Your task to perform on an android device: View the shopping cart on newegg. Add razer blade to the cart on newegg Image 0: 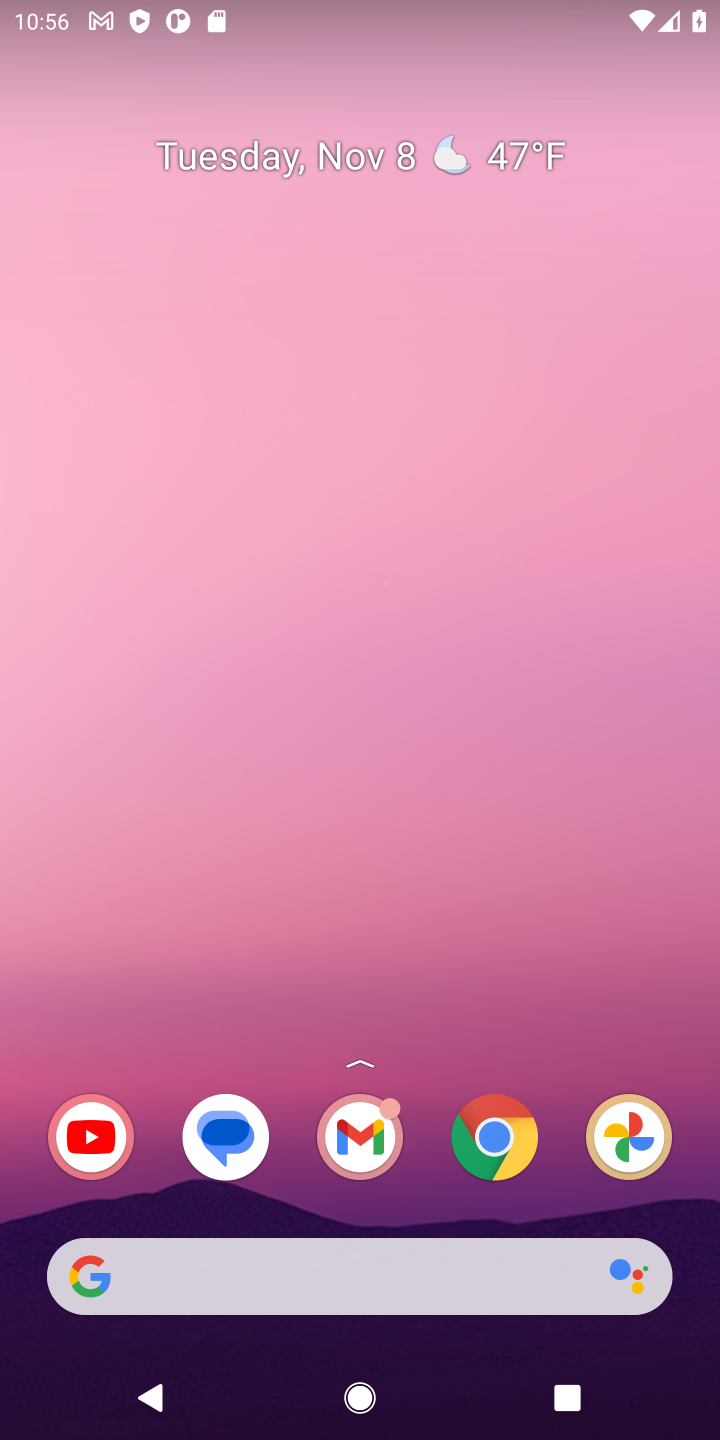
Step 0: click (497, 1140)
Your task to perform on an android device: View the shopping cart on newegg. Add razer blade to the cart on newegg Image 1: 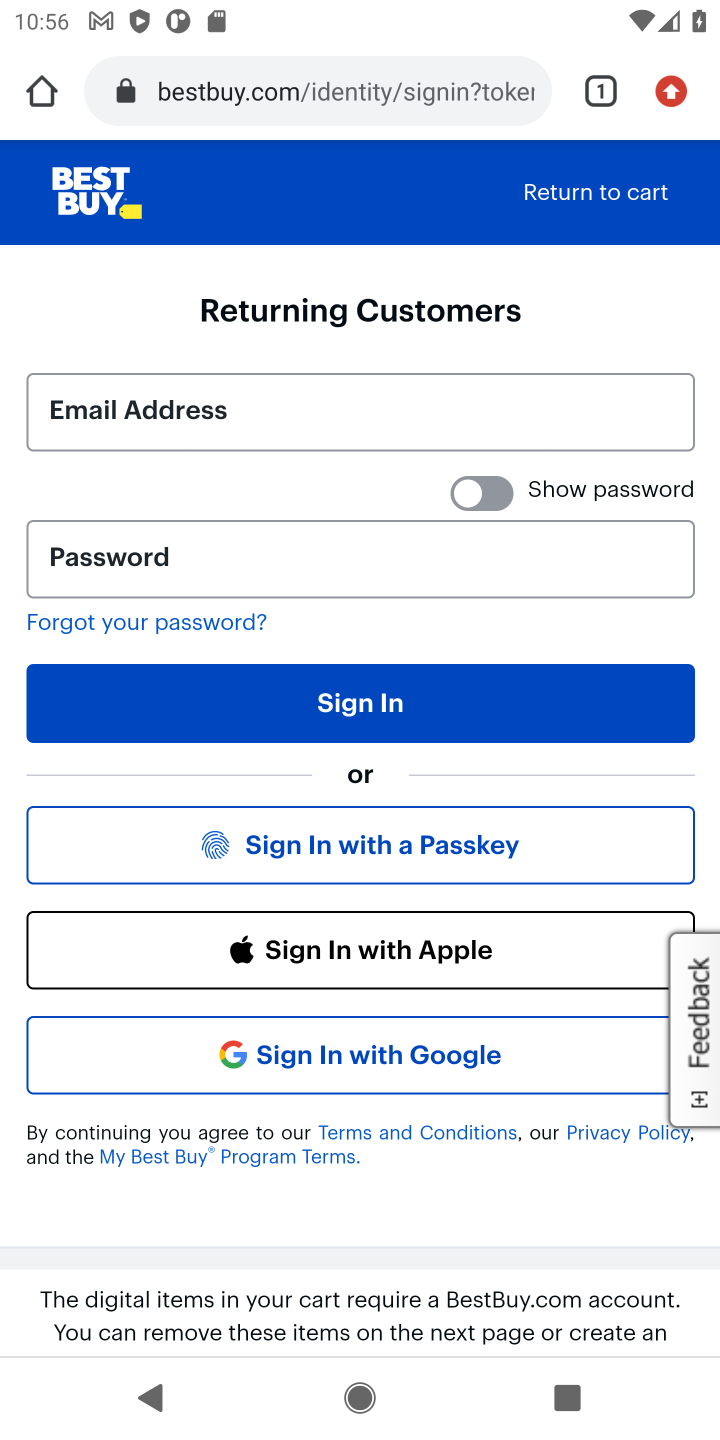
Step 1: click (472, 103)
Your task to perform on an android device: View the shopping cart on newegg. Add razer blade to the cart on newegg Image 2: 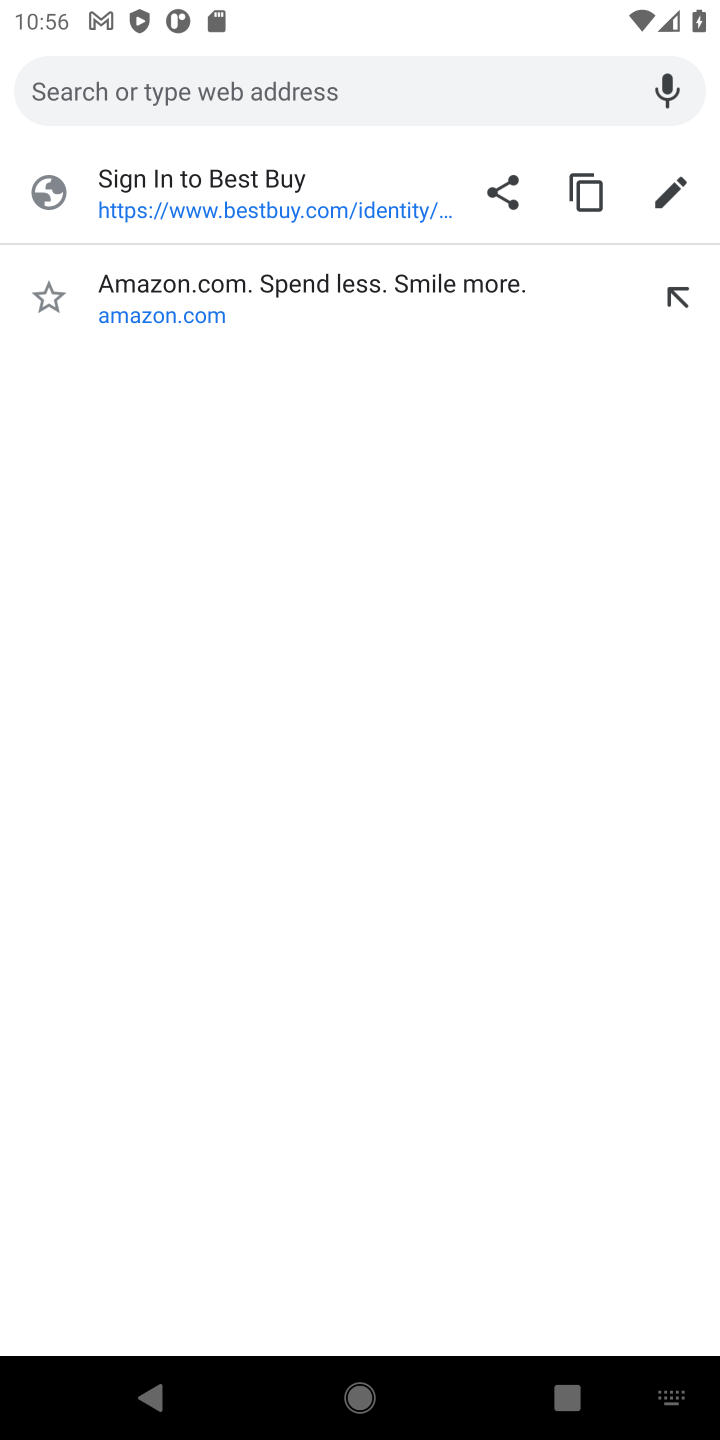
Step 2: type "newegg"
Your task to perform on an android device: View the shopping cart on newegg. Add razer blade to the cart on newegg Image 3: 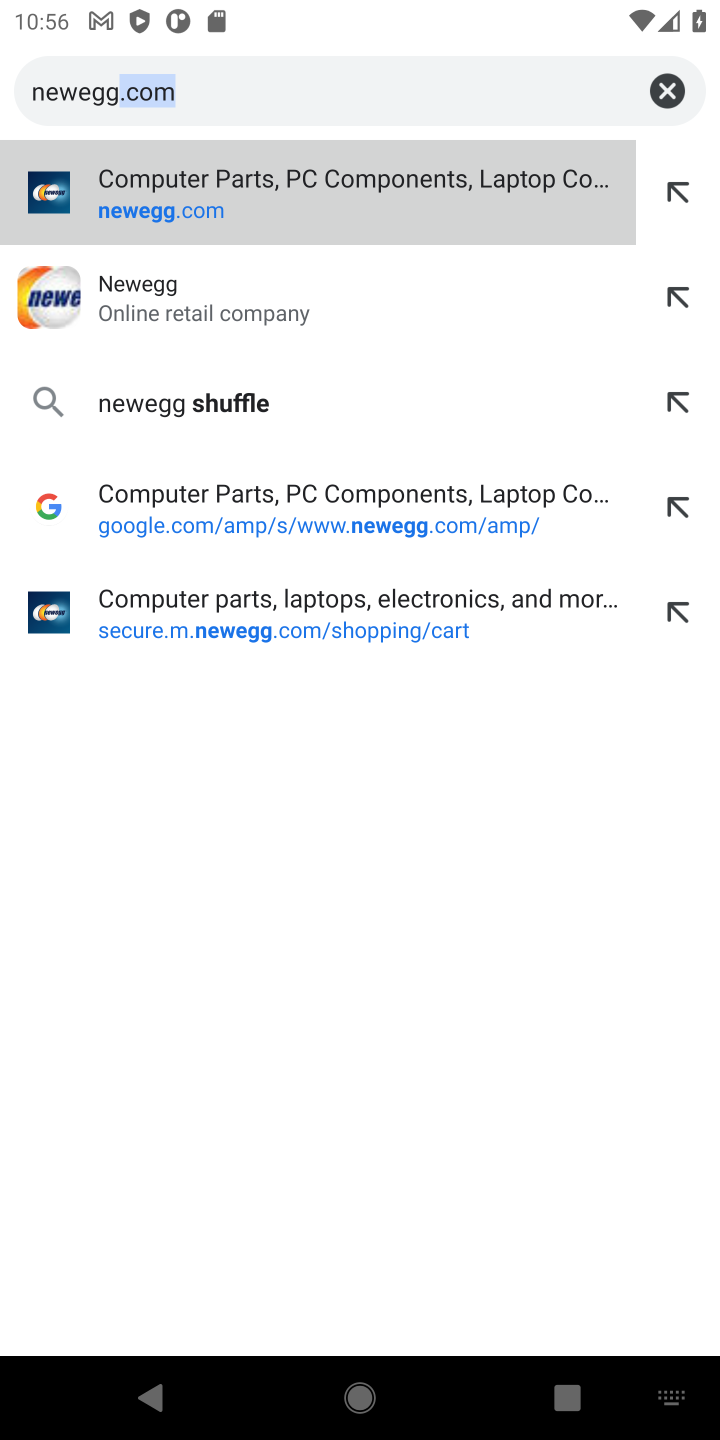
Step 3: click (184, 315)
Your task to perform on an android device: View the shopping cart on newegg. Add razer blade to the cart on newegg Image 4: 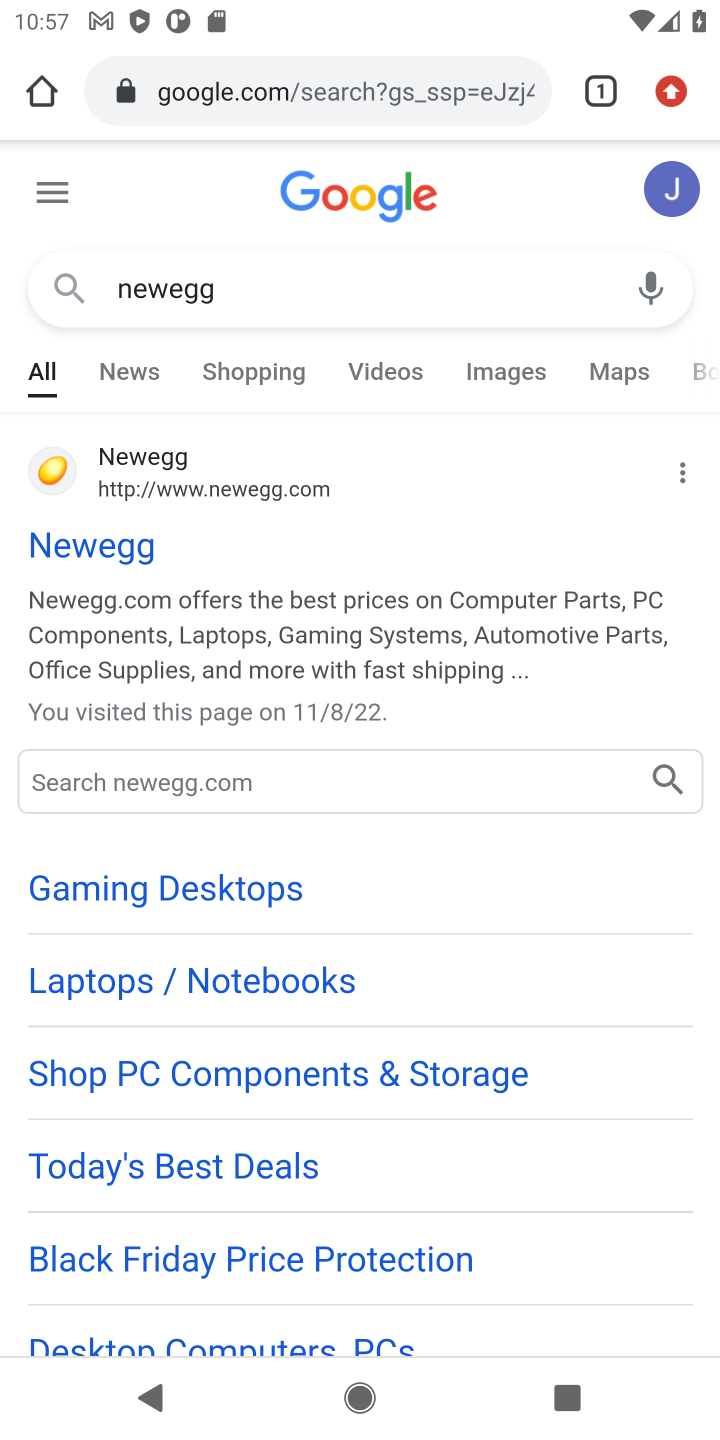
Step 4: click (193, 542)
Your task to perform on an android device: View the shopping cart on newegg. Add razer blade to the cart on newegg Image 5: 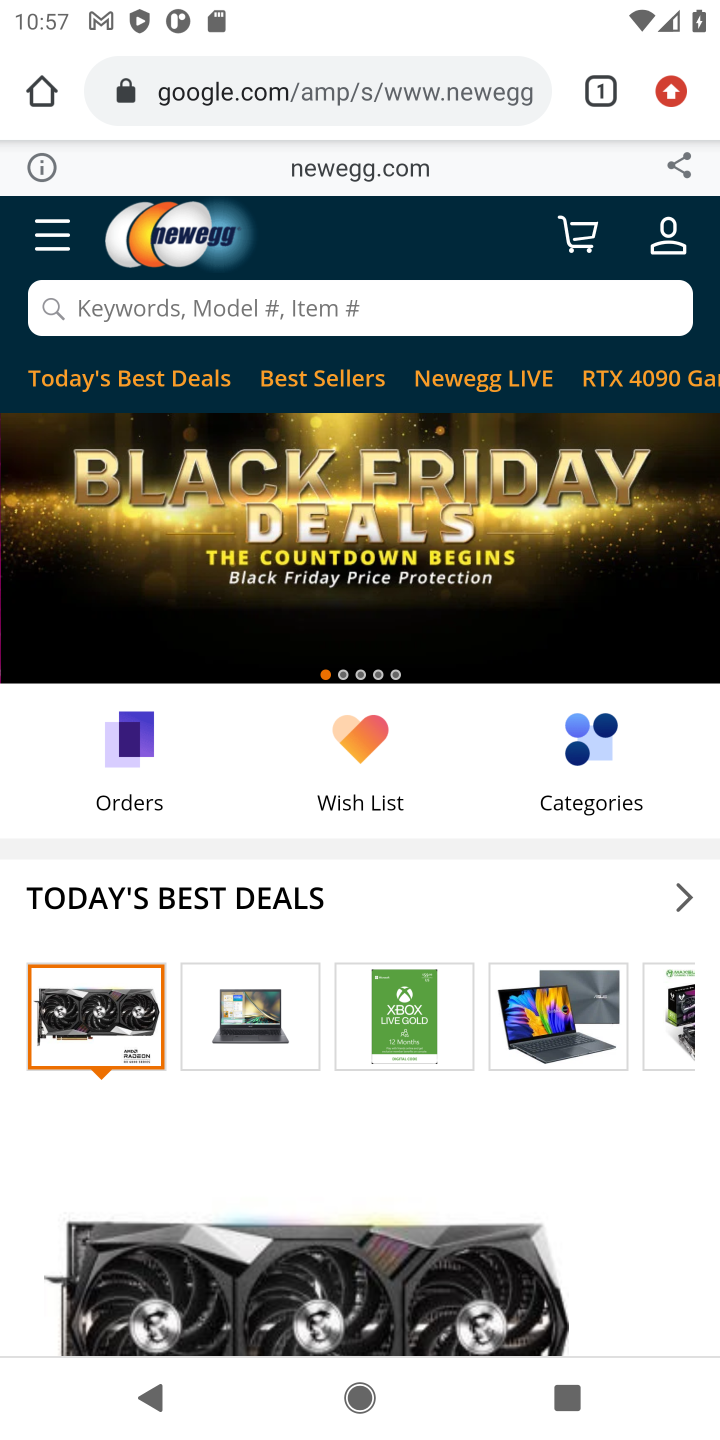
Step 5: click (573, 234)
Your task to perform on an android device: View the shopping cart on newegg. Add razer blade to the cart on newegg Image 6: 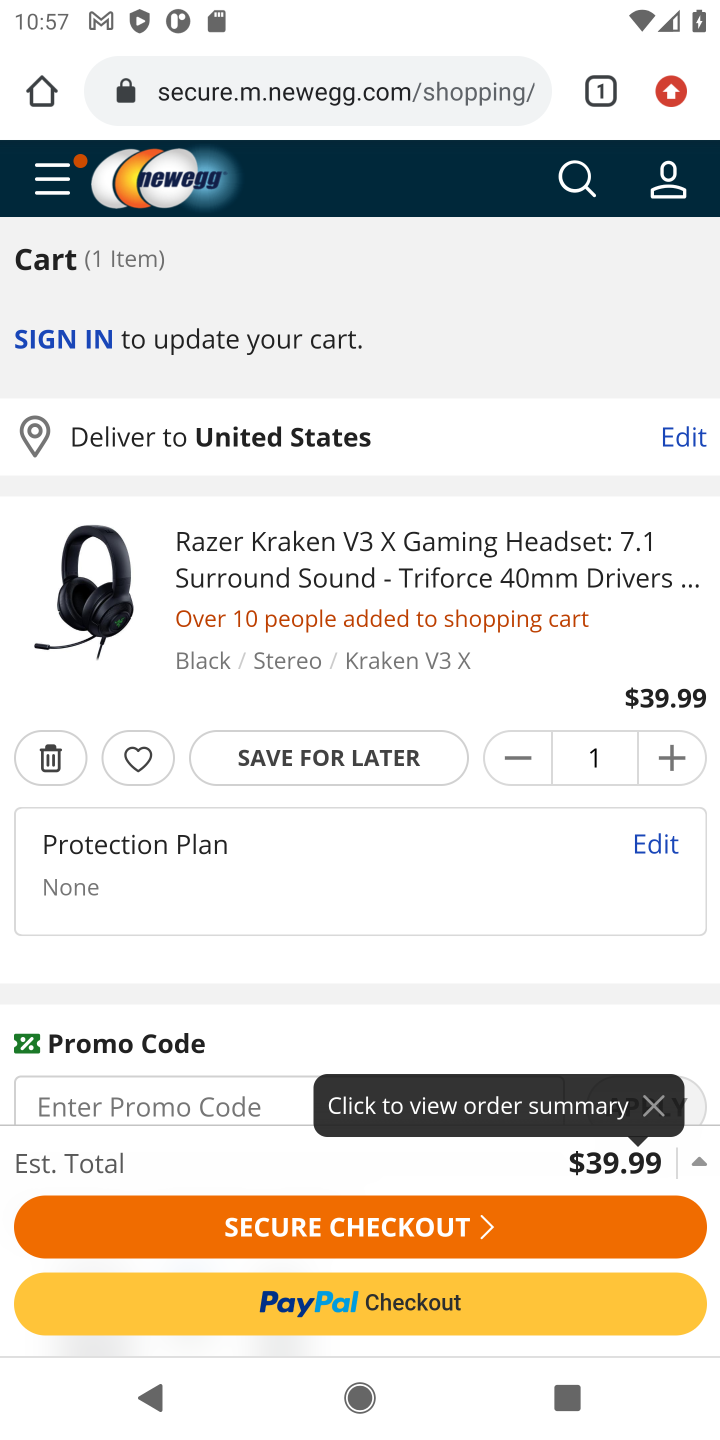
Step 6: drag from (354, 869) to (414, 472)
Your task to perform on an android device: View the shopping cart on newegg. Add razer blade to the cart on newegg Image 7: 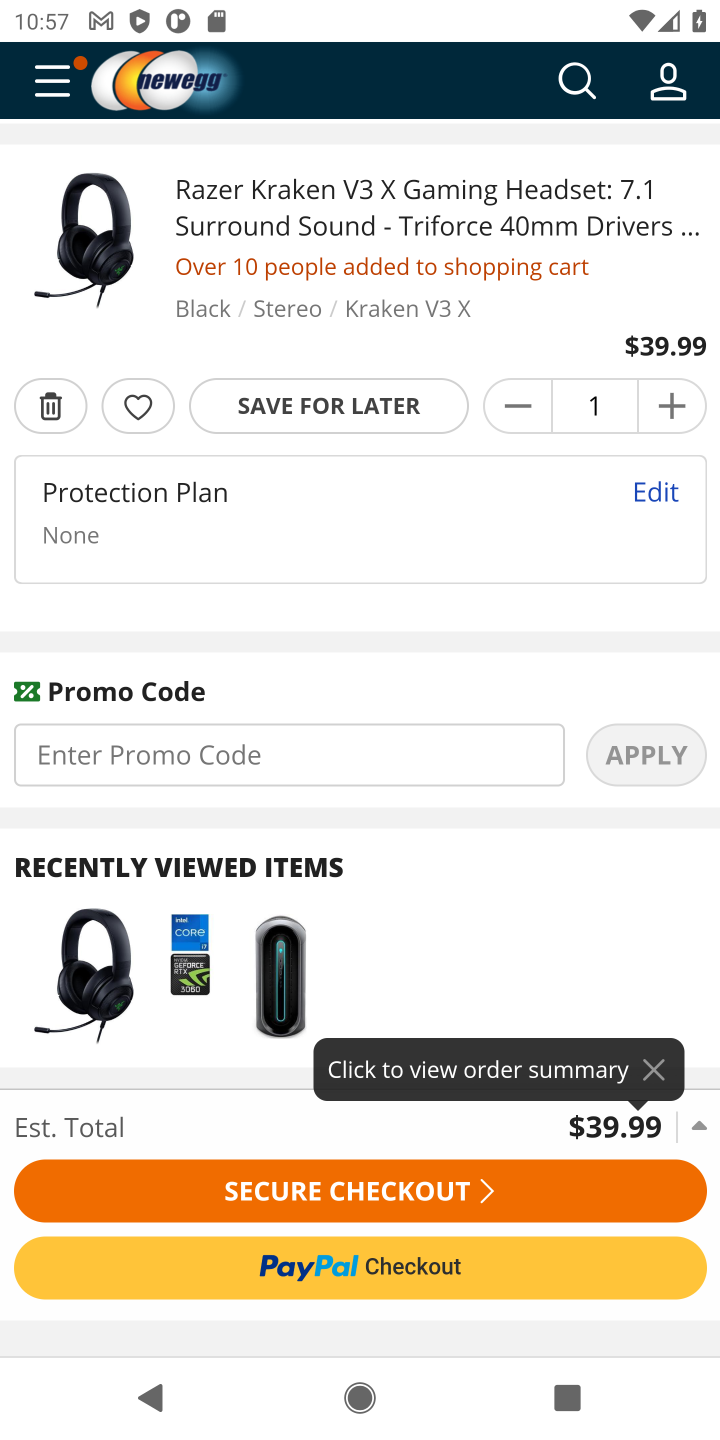
Step 7: drag from (451, 352) to (433, 729)
Your task to perform on an android device: View the shopping cart on newegg. Add razer blade to the cart on newegg Image 8: 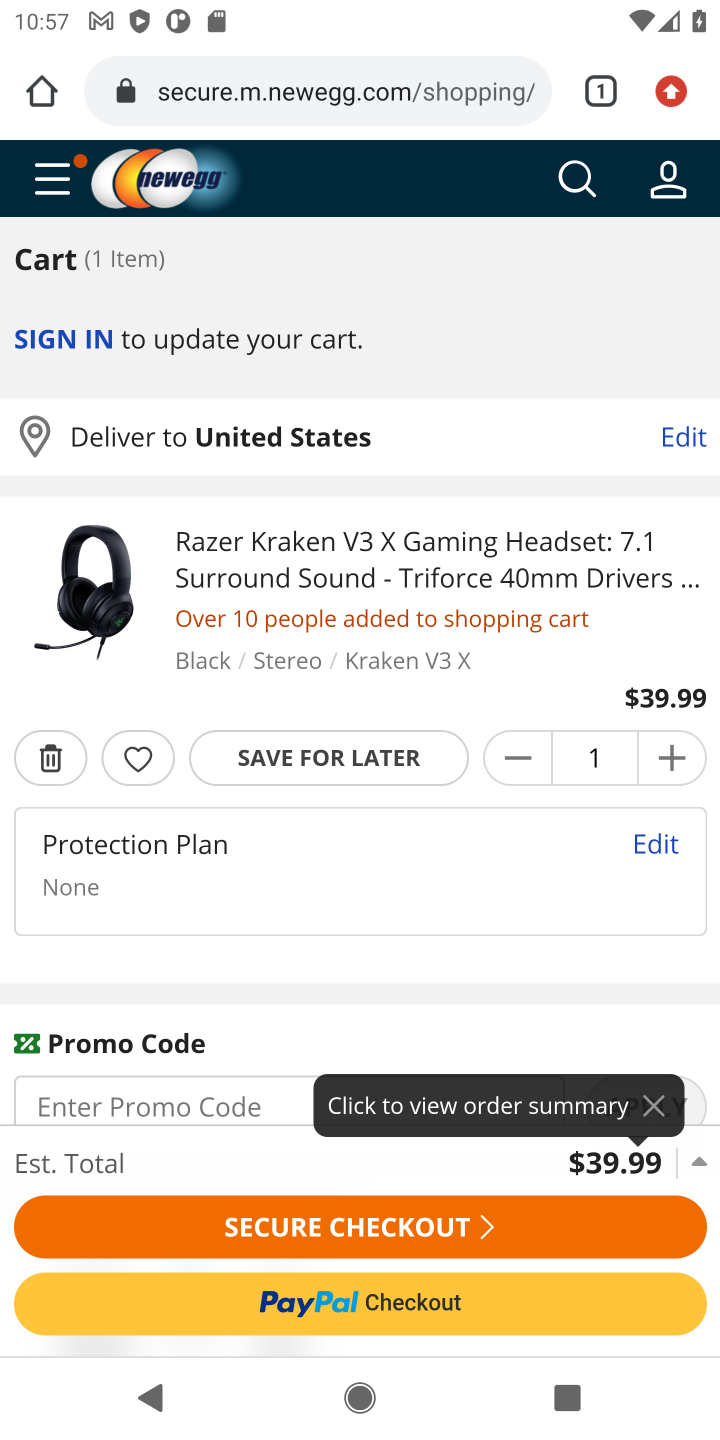
Step 8: click (567, 182)
Your task to perform on an android device: View the shopping cart on newegg. Add razer blade to the cart on newegg Image 9: 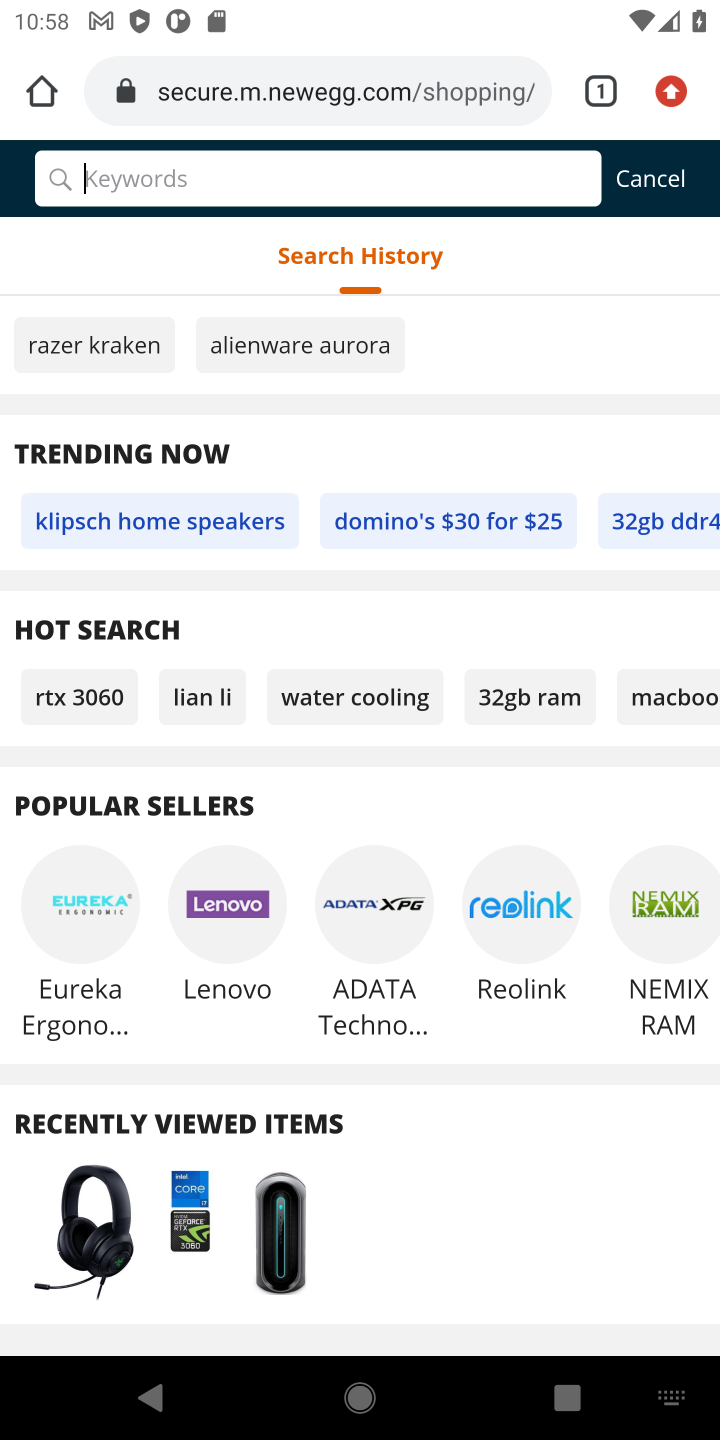
Step 9: type "razer blade"
Your task to perform on an android device: View the shopping cart on newegg. Add razer blade to the cart on newegg Image 10: 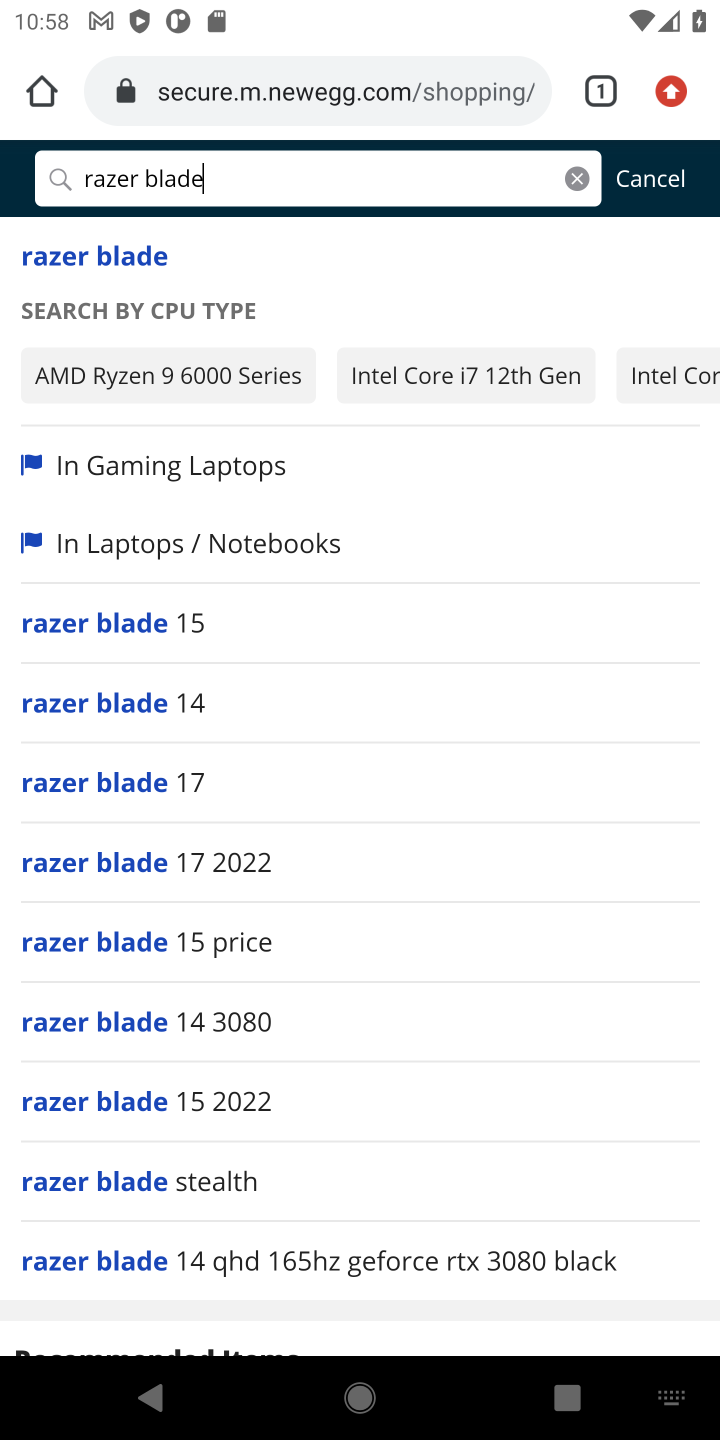
Step 10: click (149, 259)
Your task to perform on an android device: View the shopping cart on newegg. Add razer blade to the cart on newegg Image 11: 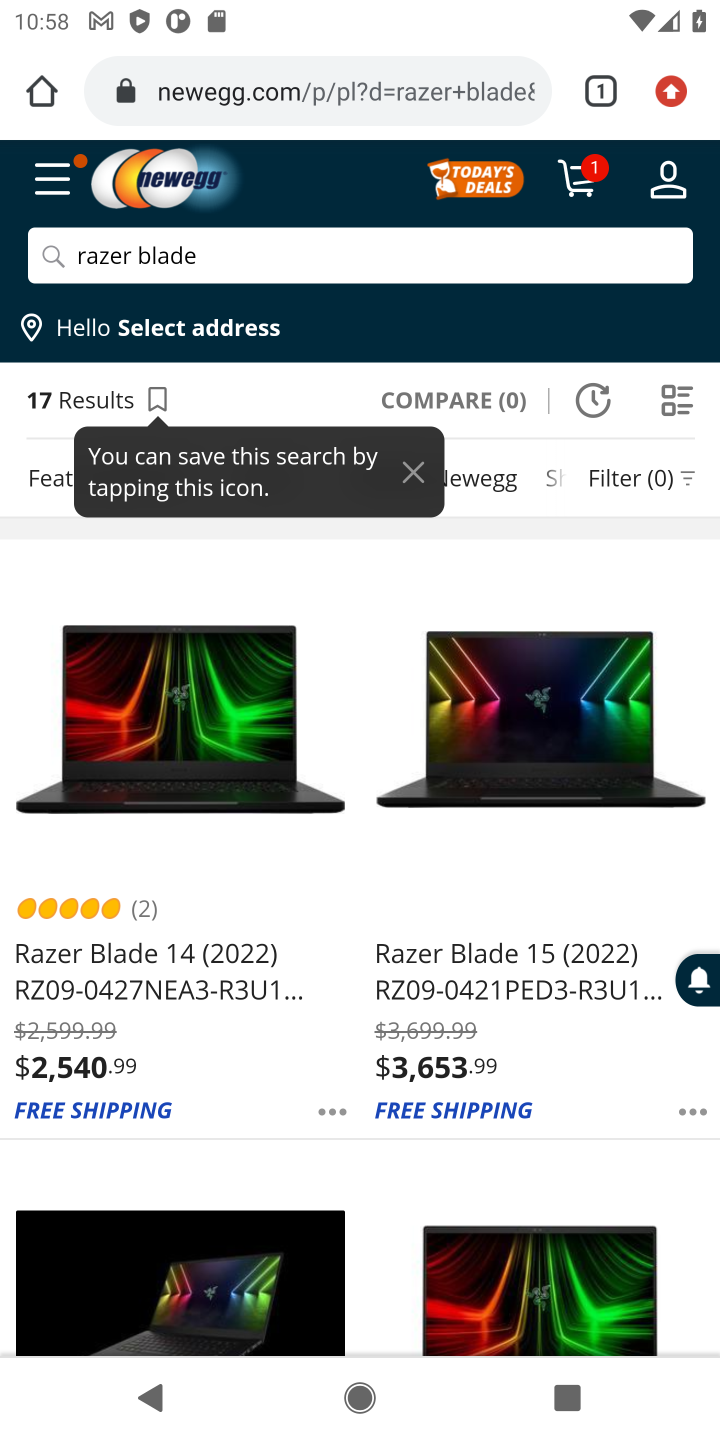
Step 11: click (142, 961)
Your task to perform on an android device: View the shopping cart on newegg. Add razer blade to the cart on newegg Image 12: 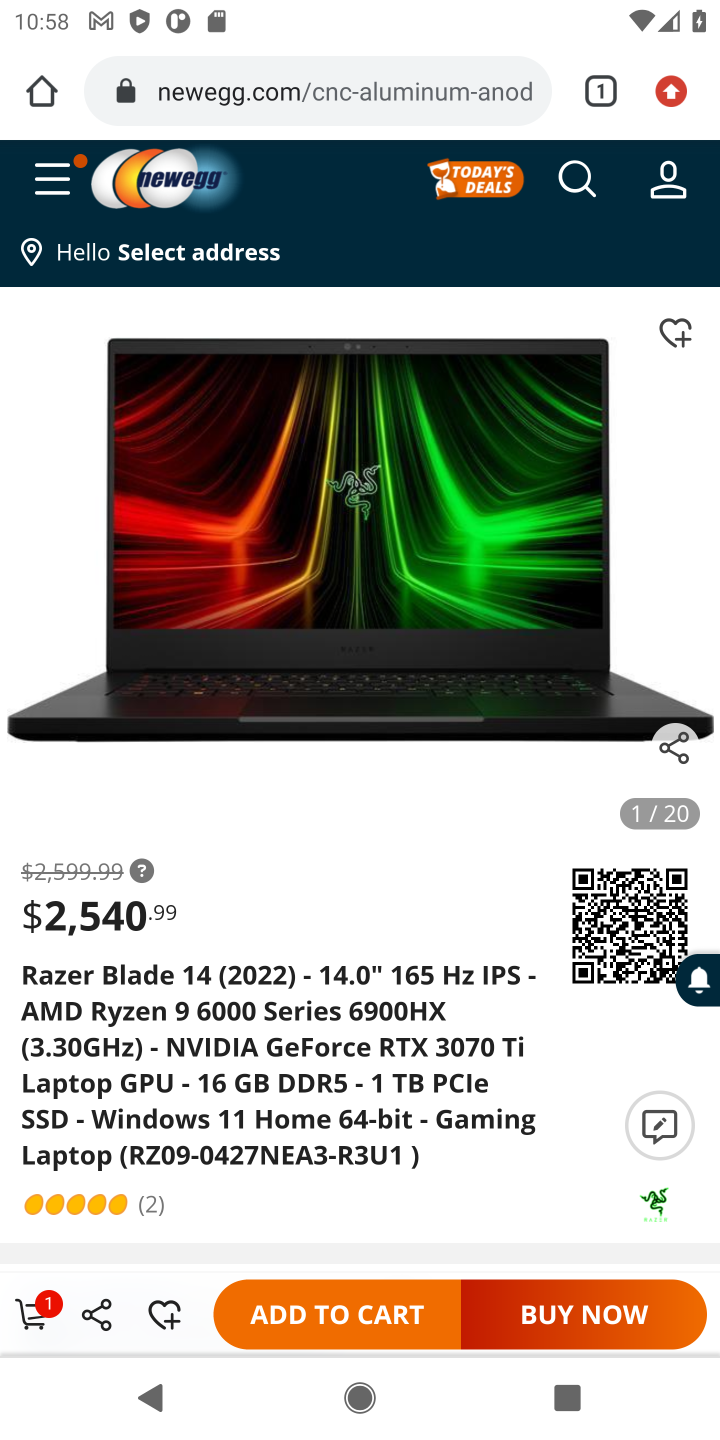
Step 12: click (339, 1304)
Your task to perform on an android device: View the shopping cart on newegg. Add razer blade to the cart on newegg Image 13: 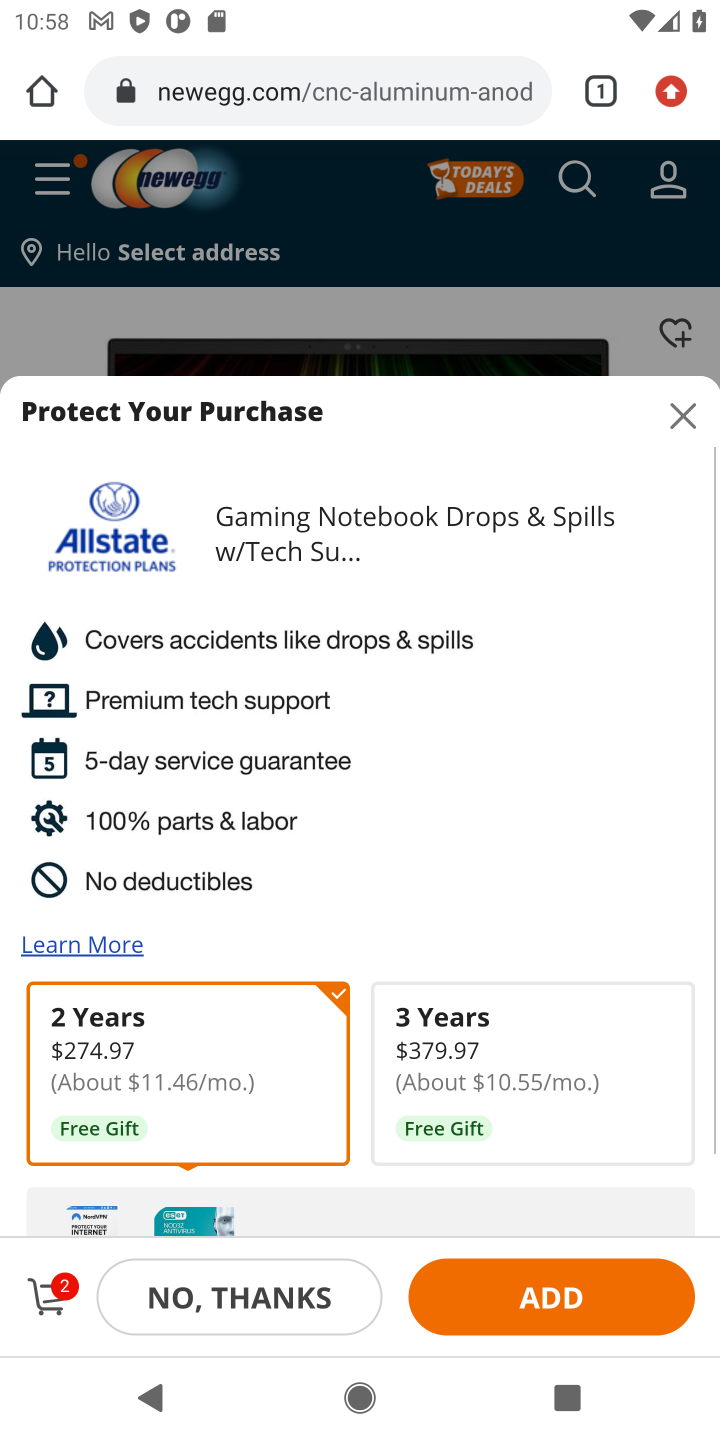
Step 13: click (242, 1291)
Your task to perform on an android device: View the shopping cart on newegg. Add razer blade to the cart on newegg Image 14: 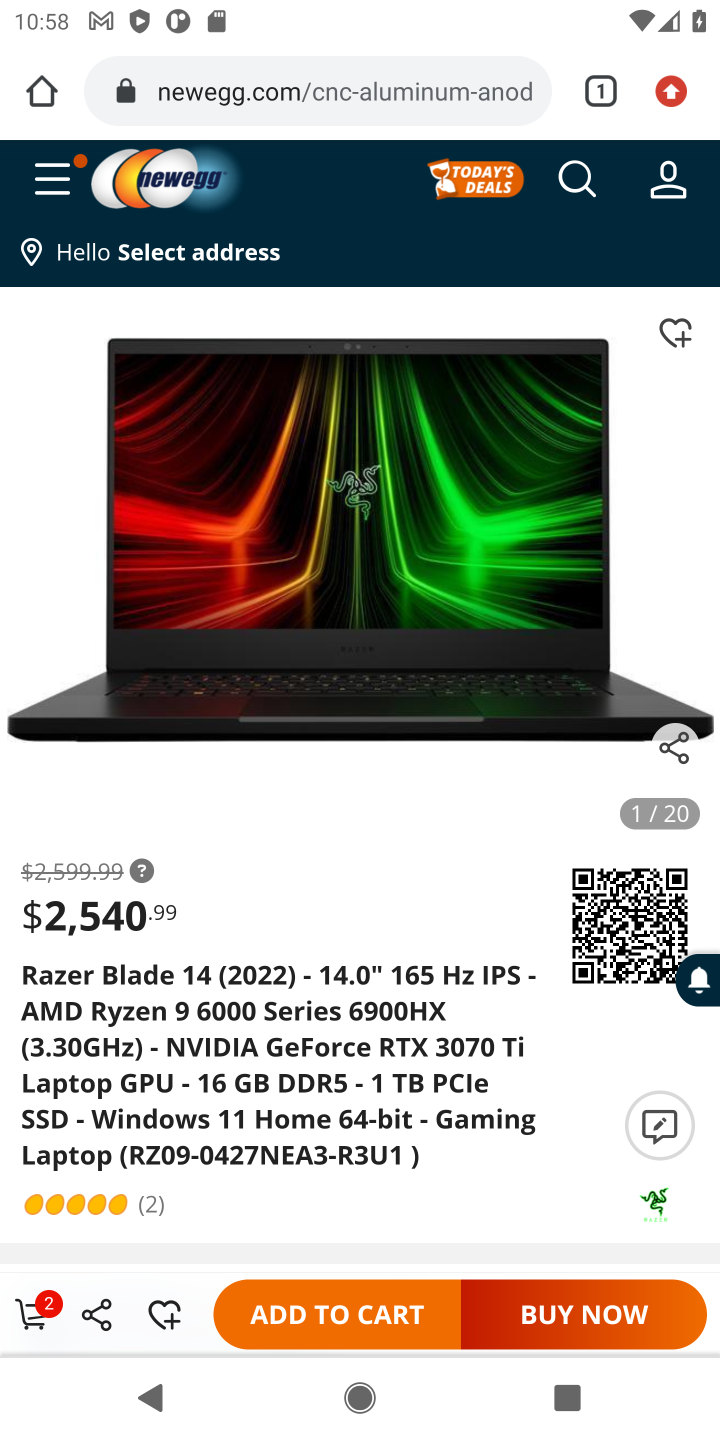
Step 14: task complete